Your task to perform on an android device: Search for pizza restaurants on Maps Image 0: 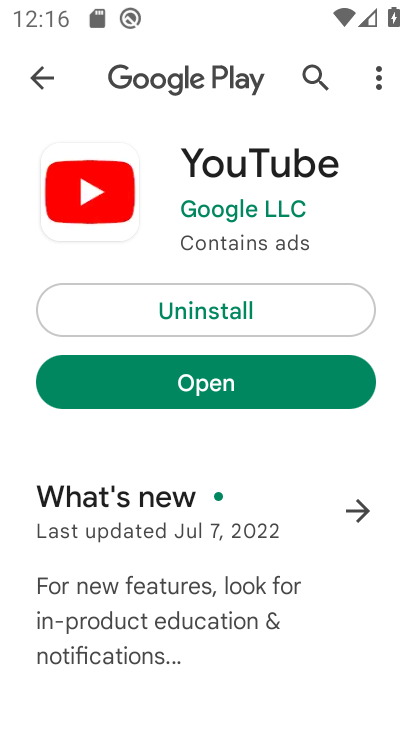
Step 0: press home button
Your task to perform on an android device: Search for pizza restaurants on Maps Image 1: 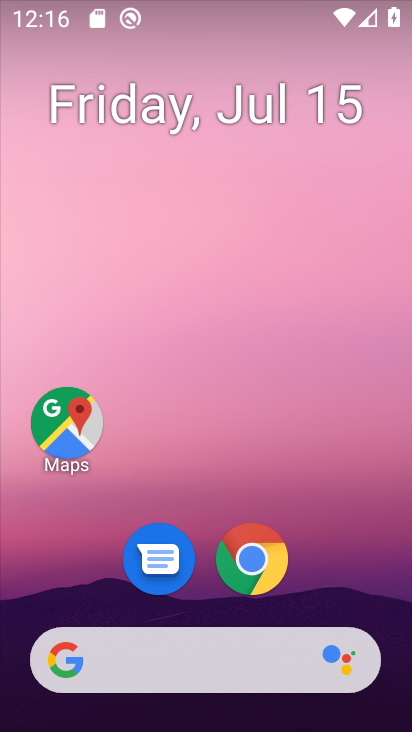
Step 1: drag from (380, 588) to (382, 149)
Your task to perform on an android device: Search for pizza restaurants on Maps Image 2: 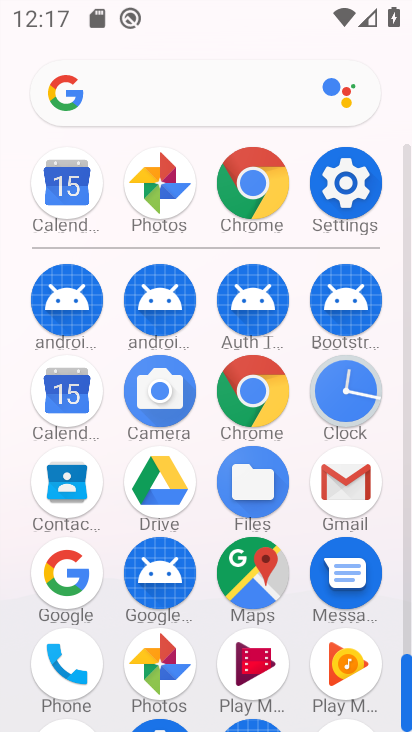
Step 2: click (263, 564)
Your task to perform on an android device: Search for pizza restaurants on Maps Image 3: 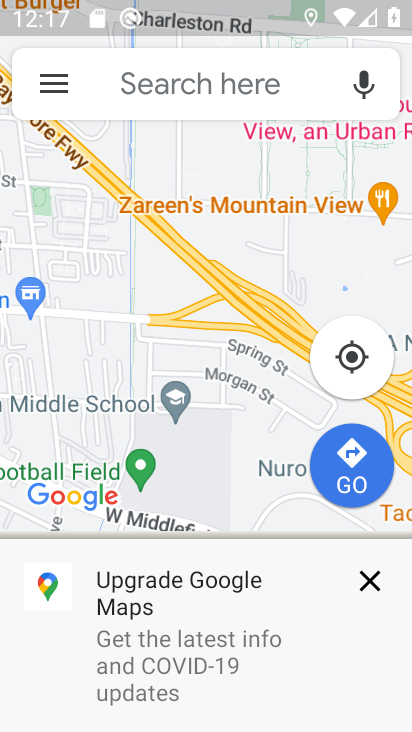
Step 3: click (311, 108)
Your task to perform on an android device: Search for pizza restaurants on Maps Image 4: 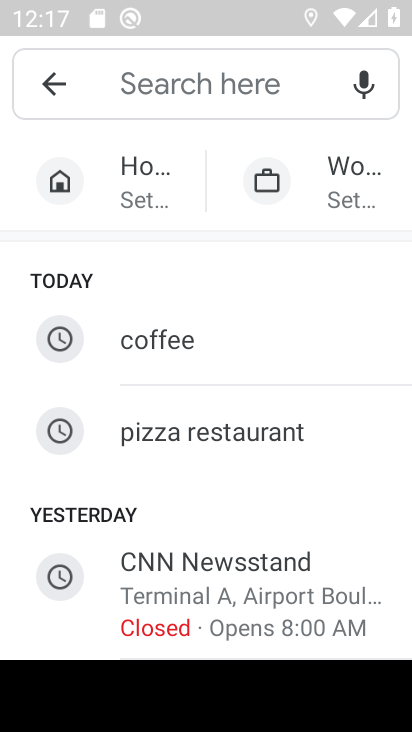
Step 4: type "pizza restaurants"
Your task to perform on an android device: Search for pizza restaurants on Maps Image 5: 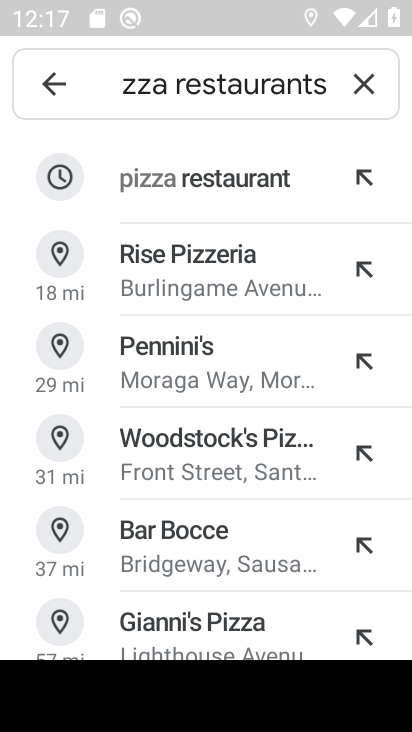
Step 5: click (287, 197)
Your task to perform on an android device: Search for pizza restaurants on Maps Image 6: 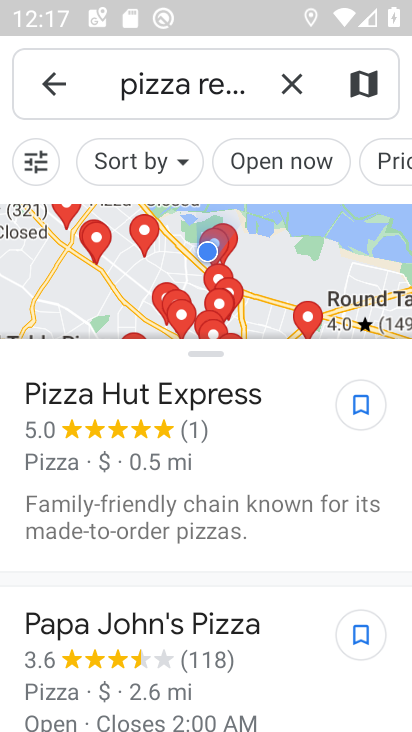
Step 6: task complete